Your task to perform on an android device: turn off airplane mode Image 0: 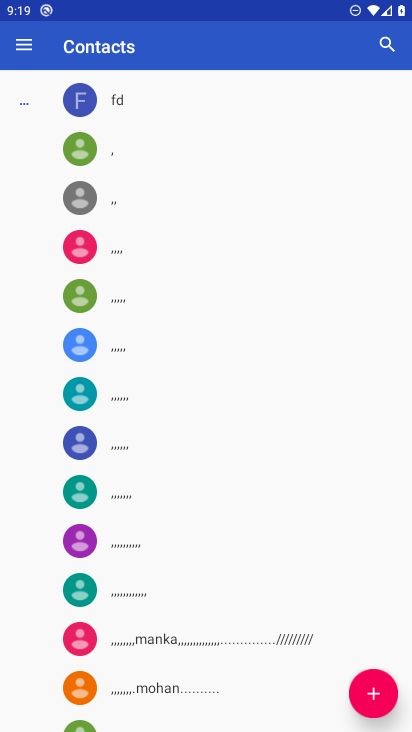
Step 0: press home button
Your task to perform on an android device: turn off airplane mode Image 1: 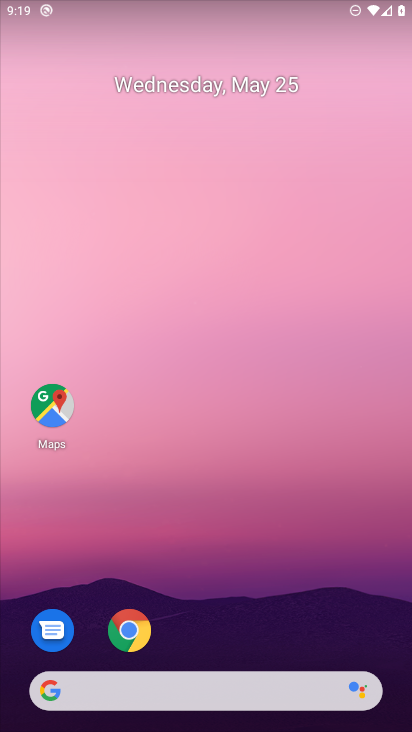
Step 1: drag from (293, 6) to (289, 523)
Your task to perform on an android device: turn off airplane mode Image 2: 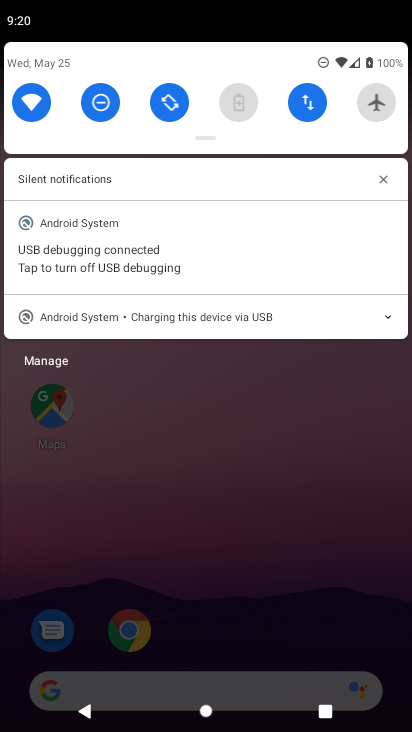
Step 2: drag from (224, 120) to (247, 530)
Your task to perform on an android device: turn off airplane mode Image 3: 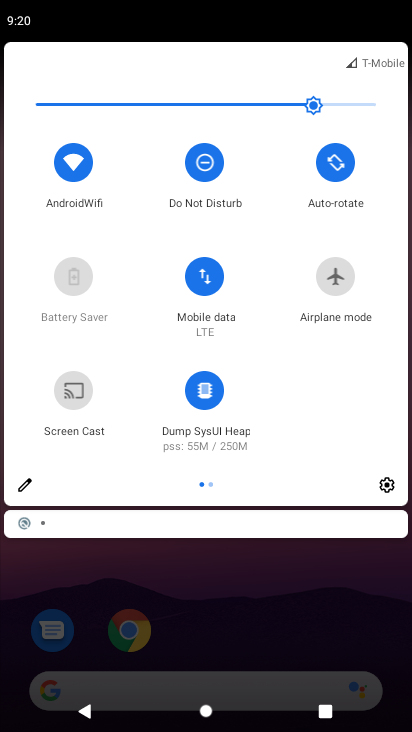
Step 3: drag from (352, 339) to (0, 375)
Your task to perform on an android device: turn off airplane mode Image 4: 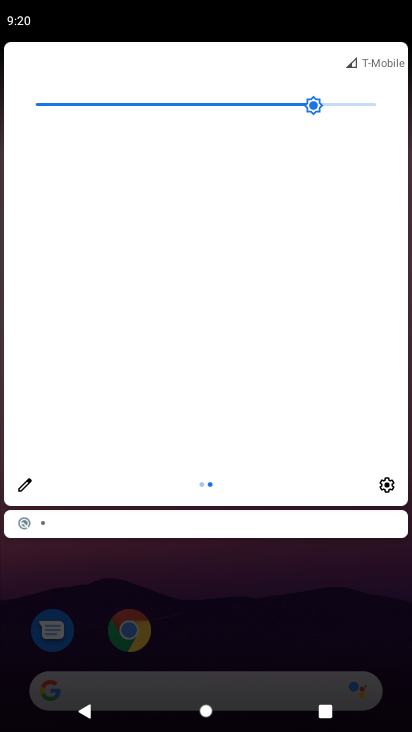
Step 4: click (30, 479)
Your task to perform on an android device: turn off airplane mode Image 5: 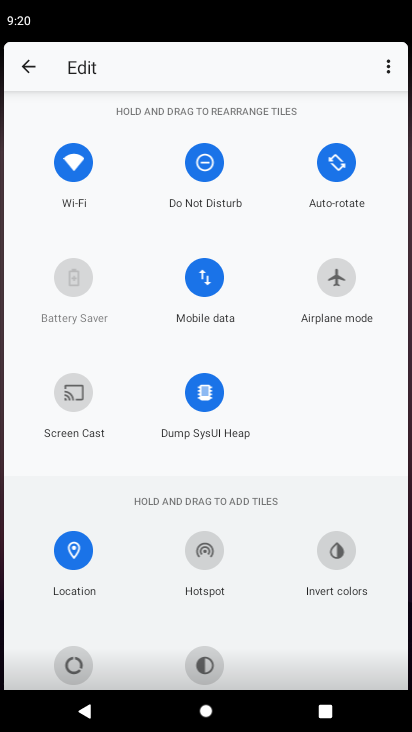
Step 5: task complete